Your task to perform on an android device: turn vacation reply on in the gmail app Image 0: 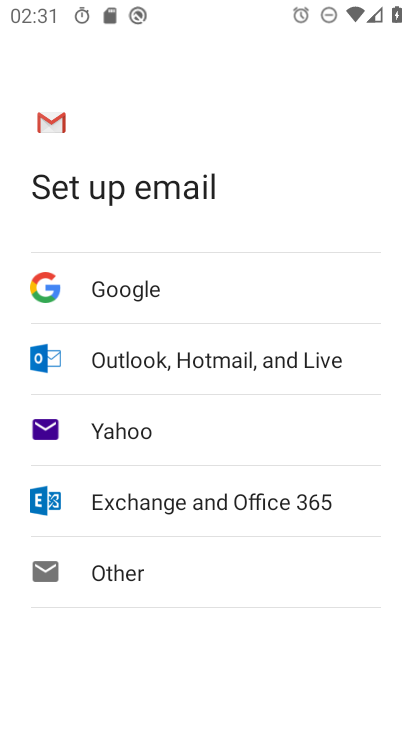
Step 0: press home button
Your task to perform on an android device: turn vacation reply on in the gmail app Image 1: 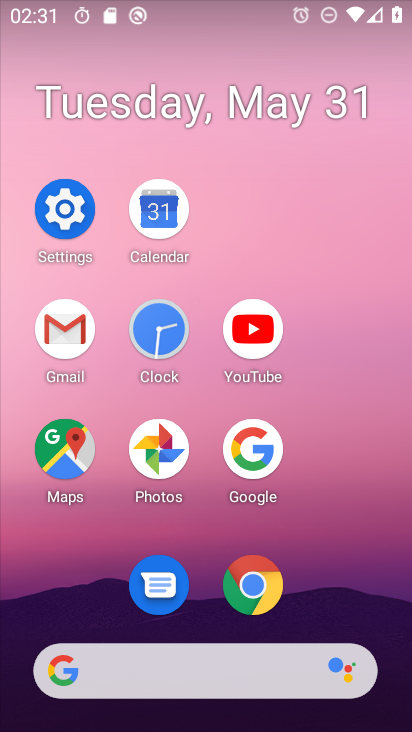
Step 1: click (73, 322)
Your task to perform on an android device: turn vacation reply on in the gmail app Image 2: 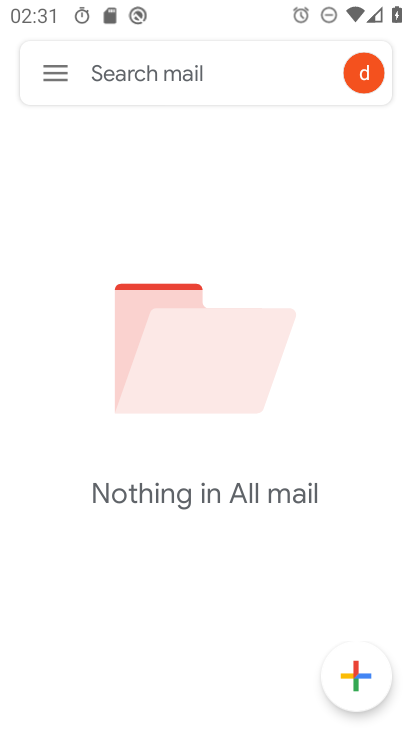
Step 2: click (42, 62)
Your task to perform on an android device: turn vacation reply on in the gmail app Image 3: 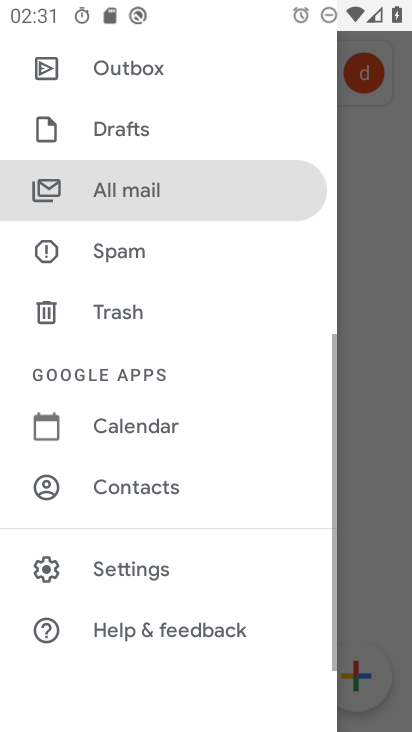
Step 3: click (183, 562)
Your task to perform on an android device: turn vacation reply on in the gmail app Image 4: 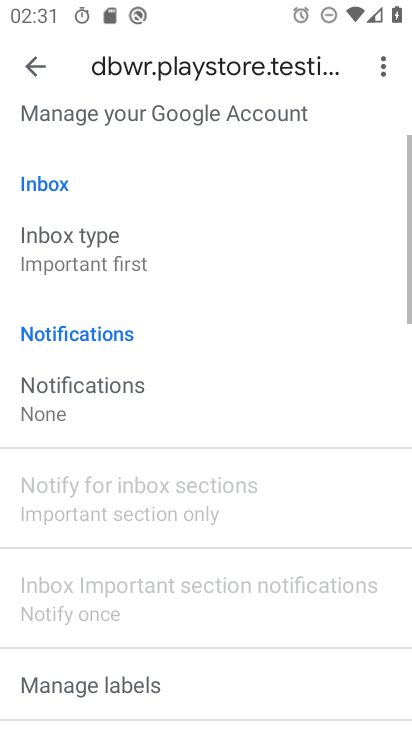
Step 4: drag from (195, 558) to (216, 141)
Your task to perform on an android device: turn vacation reply on in the gmail app Image 5: 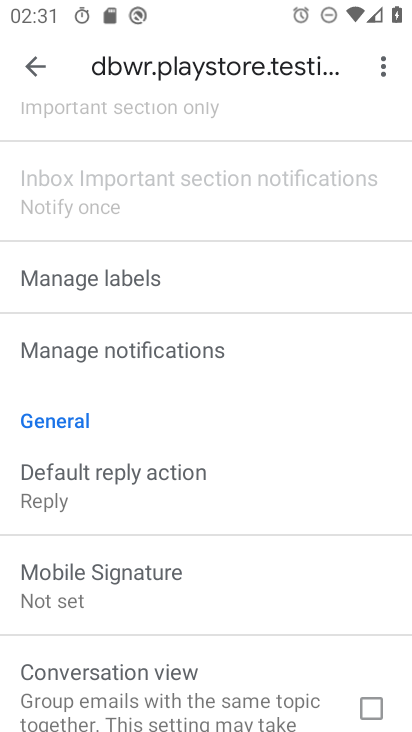
Step 5: drag from (326, 639) to (279, 246)
Your task to perform on an android device: turn vacation reply on in the gmail app Image 6: 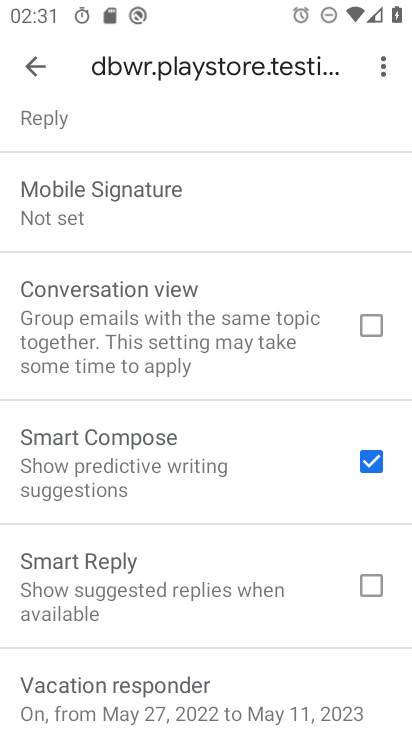
Step 6: drag from (281, 599) to (266, 265)
Your task to perform on an android device: turn vacation reply on in the gmail app Image 7: 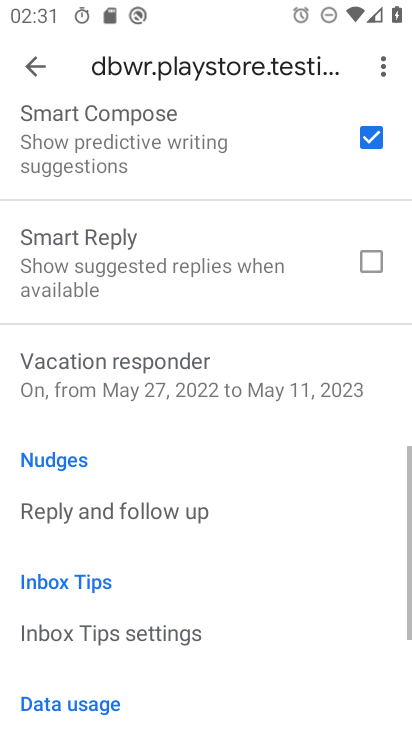
Step 7: click (292, 373)
Your task to perform on an android device: turn vacation reply on in the gmail app Image 8: 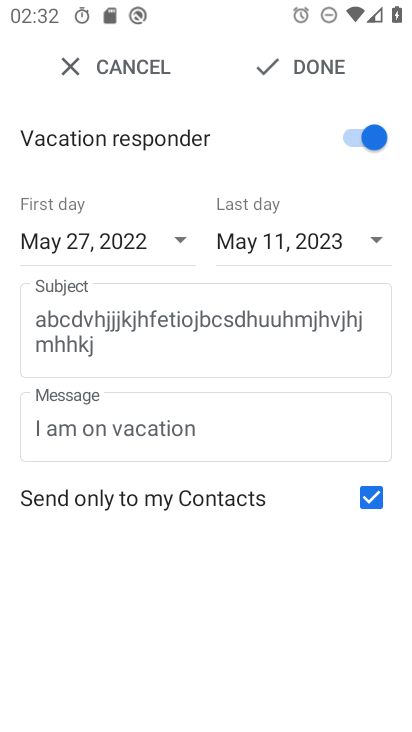
Step 8: click (318, 75)
Your task to perform on an android device: turn vacation reply on in the gmail app Image 9: 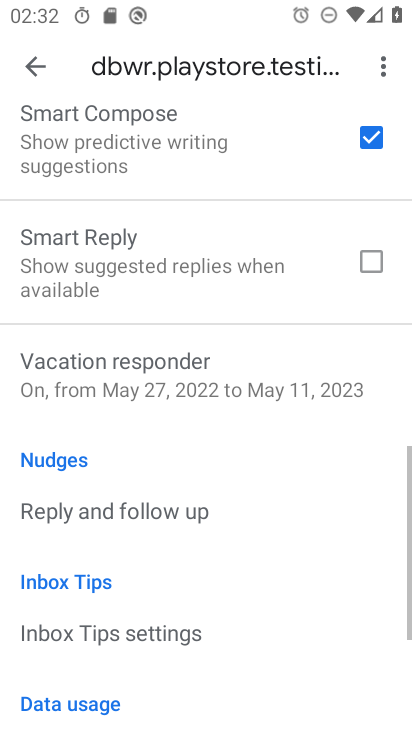
Step 9: task complete